Your task to perform on an android device: manage bookmarks in the chrome app Image 0: 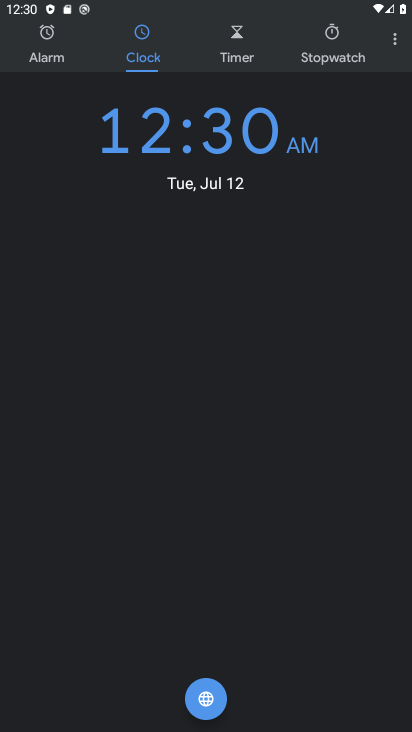
Step 0: press home button
Your task to perform on an android device: manage bookmarks in the chrome app Image 1: 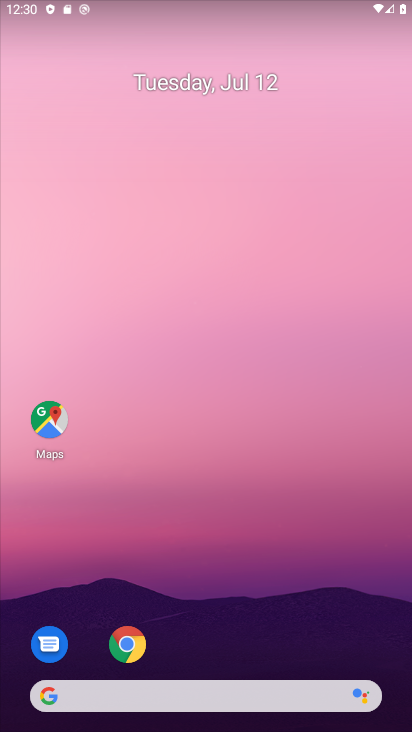
Step 1: click (138, 635)
Your task to perform on an android device: manage bookmarks in the chrome app Image 2: 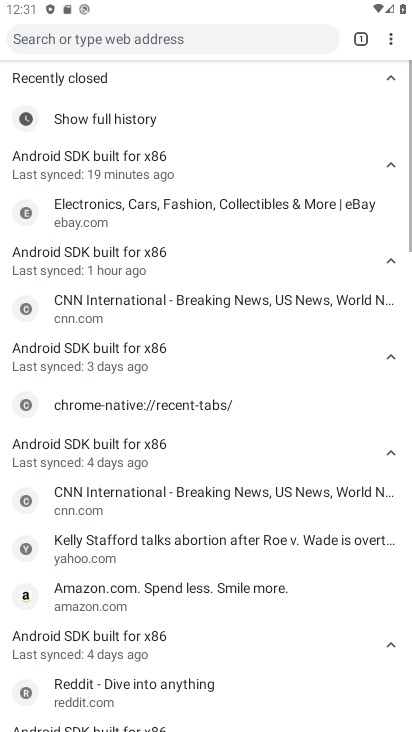
Step 2: click (393, 42)
Your task to perform on an android device: manage bookmarks in the chrome app Image 3: 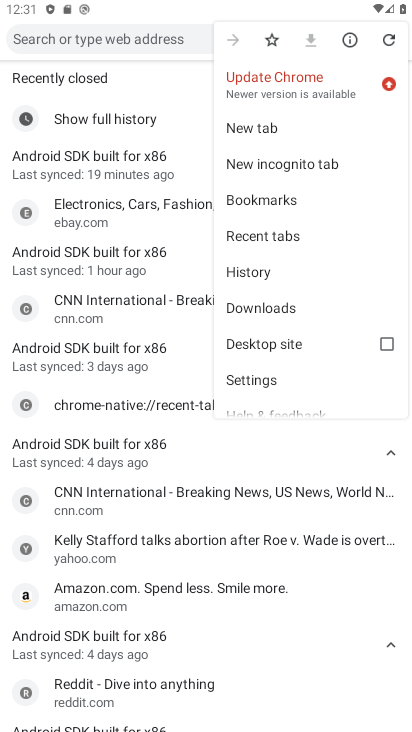
Step 3: click (276, 206)
Your task to perform on an android device: manage bookmarks in the chrome app Image 4: 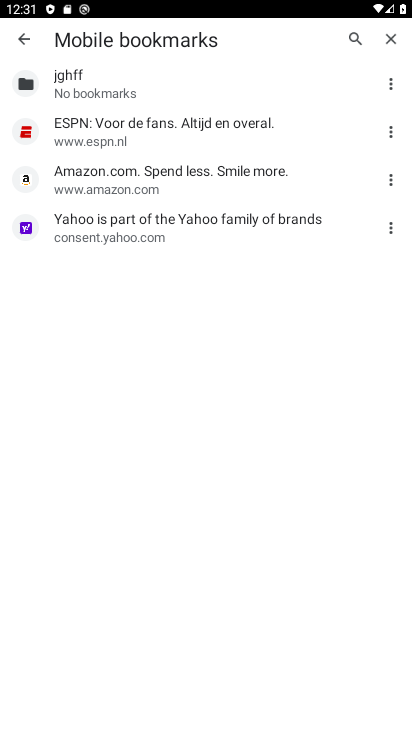
Step 4: click (390, 130)
Your task to perform on an android device: manage bookmarks in the chrome app Image 5: 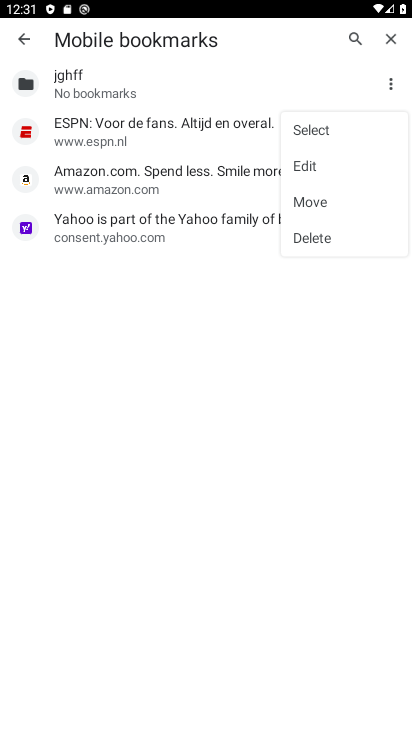
Step 5: click (312, 135)
Your task to perform on an android device: manage bookmarks in the chrome app Image 6: 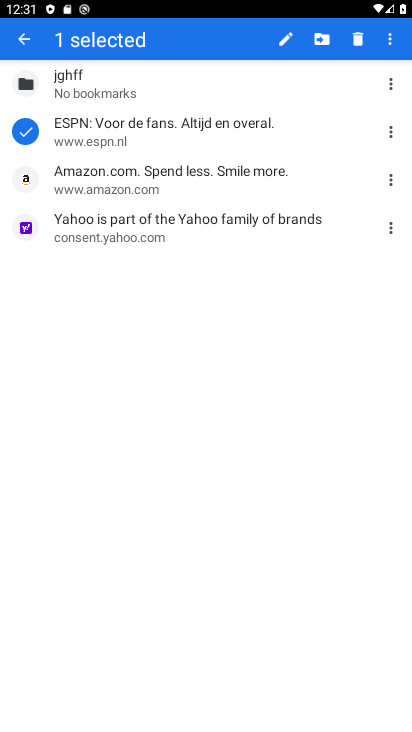
Step 6: click (206, 179)
Your task to perform on an android device: manage bookmarks in the chrome app Image 7: 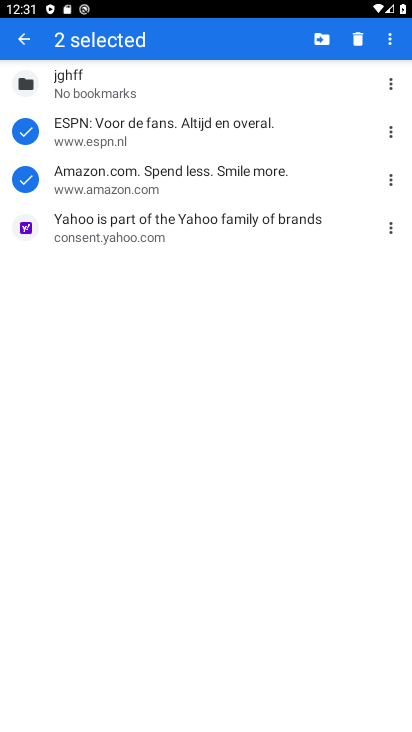
Step 7: click (170, 226)
Your task to perform on an android device: manage bookmarks in the chrome app Image 8: 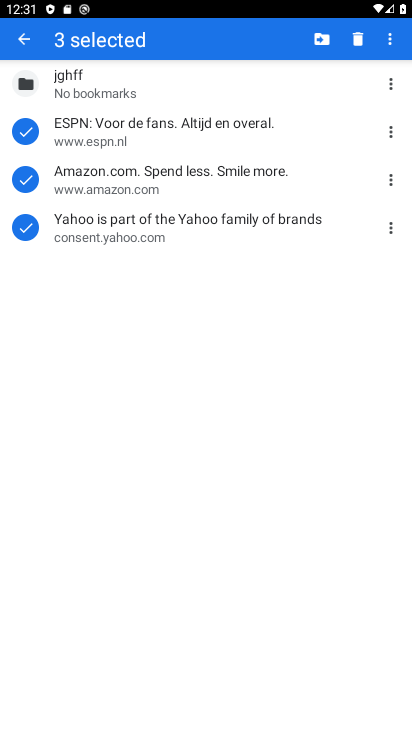
Step 8: click (319, 34)
Your task to perform on an android device: manage bookmarks in the chrome app Image 9: 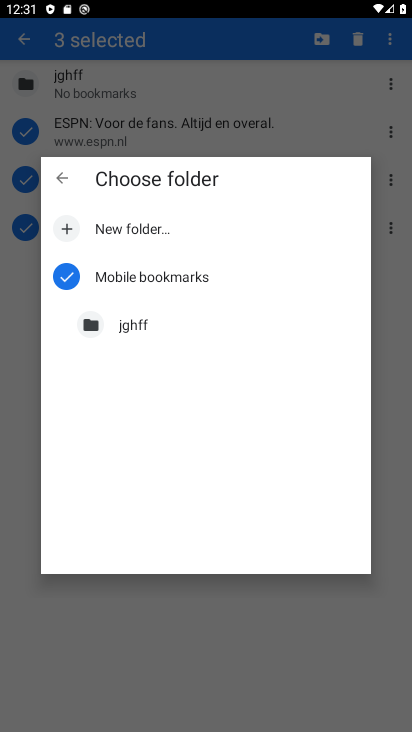
Step 9: click (152, 326)
Your task to perform on an android device: manage bookmarks in the chrome app Image 10: 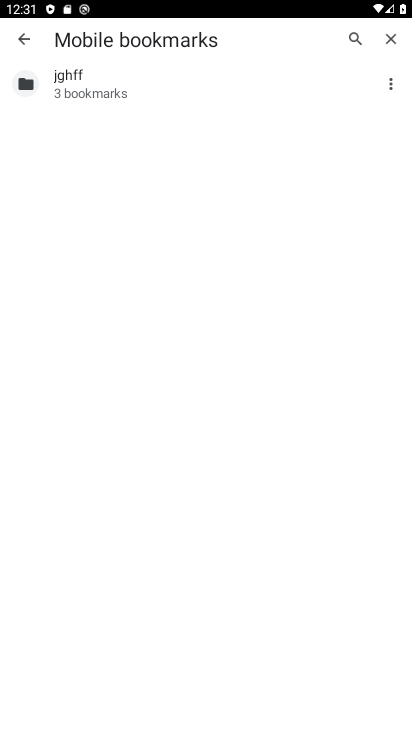
Step 10: task complete